Your task to perform on an android device: Add razer huntsman to the cart on costco.com Image 0: 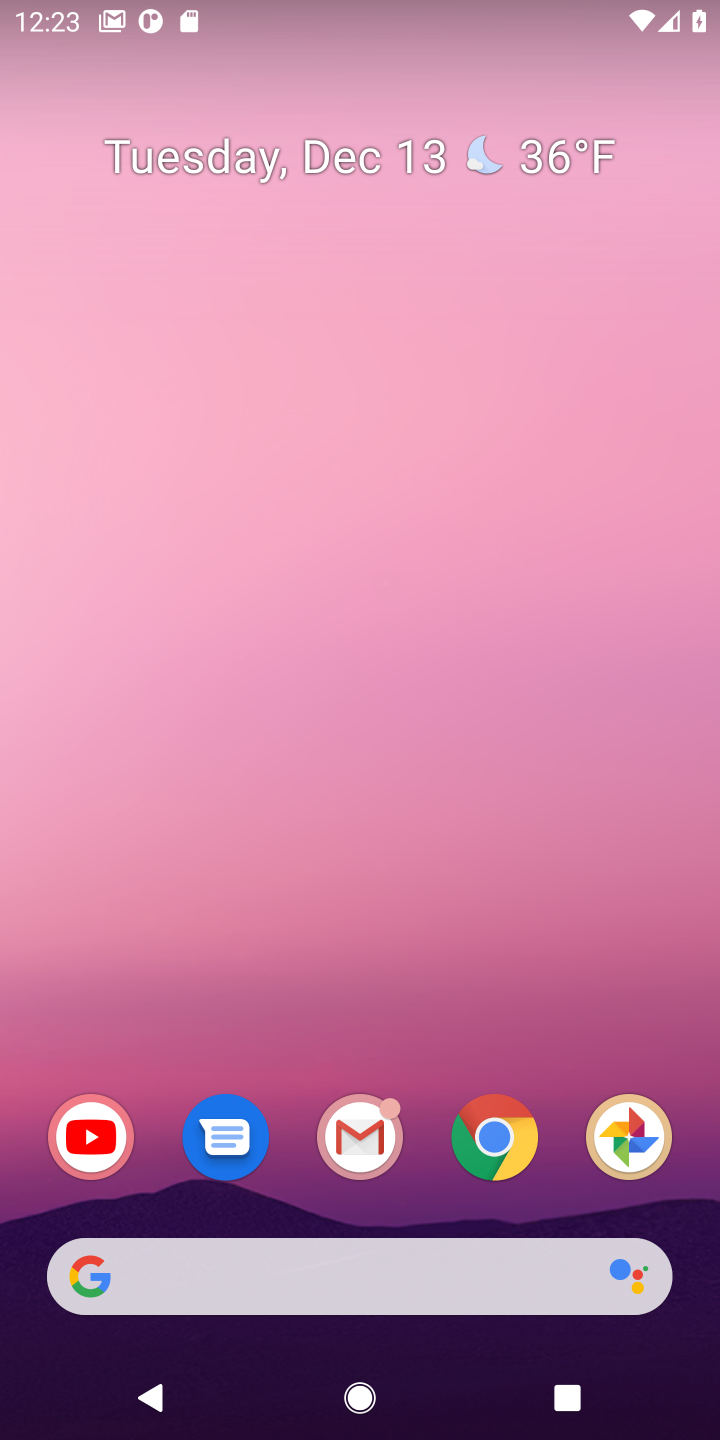
Step 0: click (305, 1254)
Your task to perform on an android device: Add razer huntsman to the cart on costco.com Image 1: 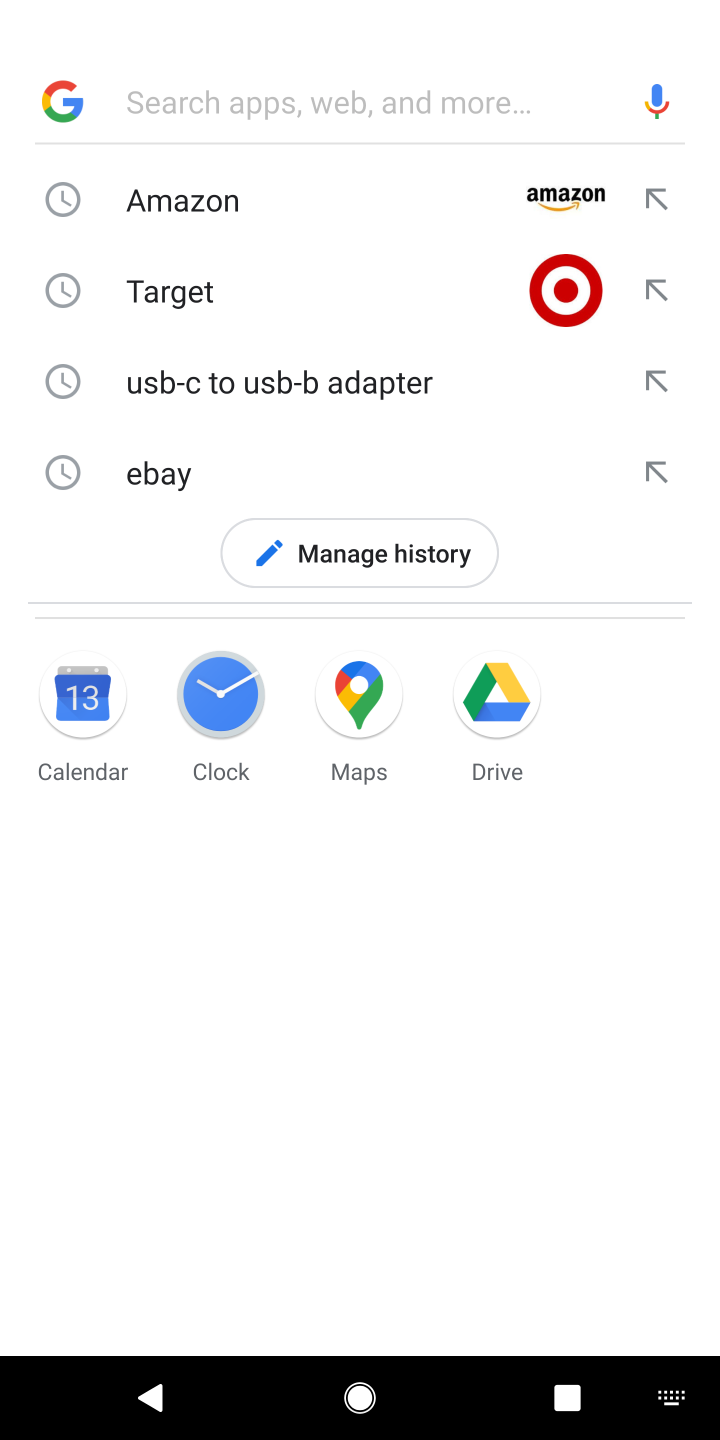
Step 1: type " ostco"
Your task to perform on an android device: Add razer huntsman to the cart on costco.com Image 2: 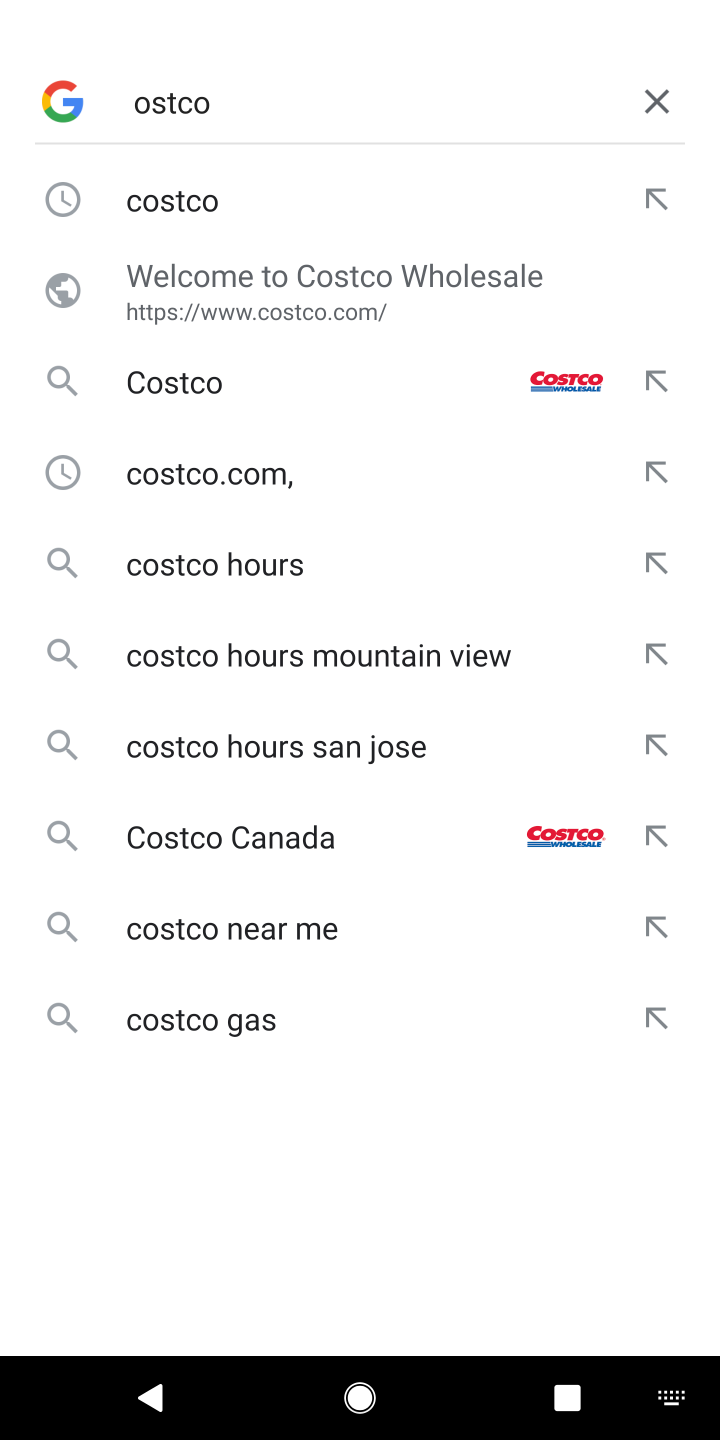
Step 2: click (230, 282)
Your task to perform on an android device: Add razer huntsman to the cart on costco.com Image 3: 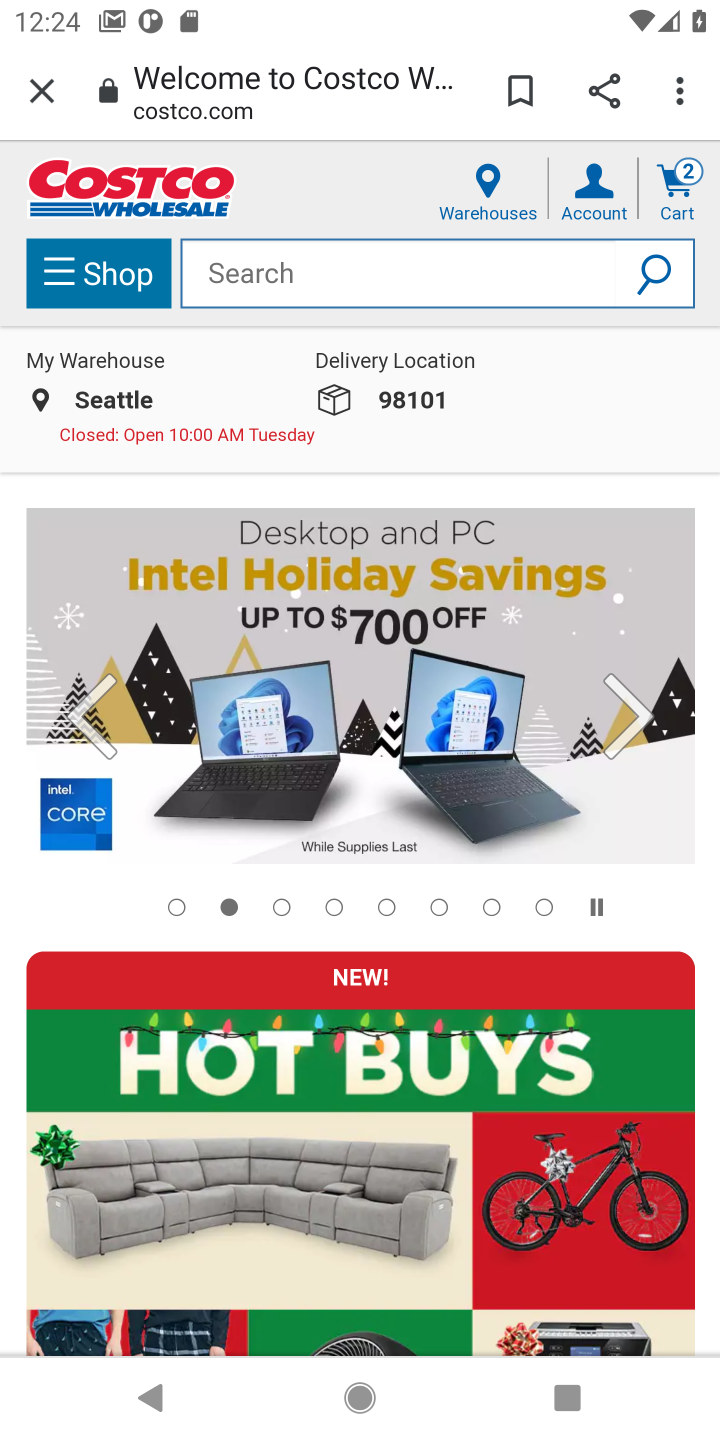
Step 3: click (411, 265)
Your task to perform on an android device: Add razer huntsman to the cart on costco.com Image 4: 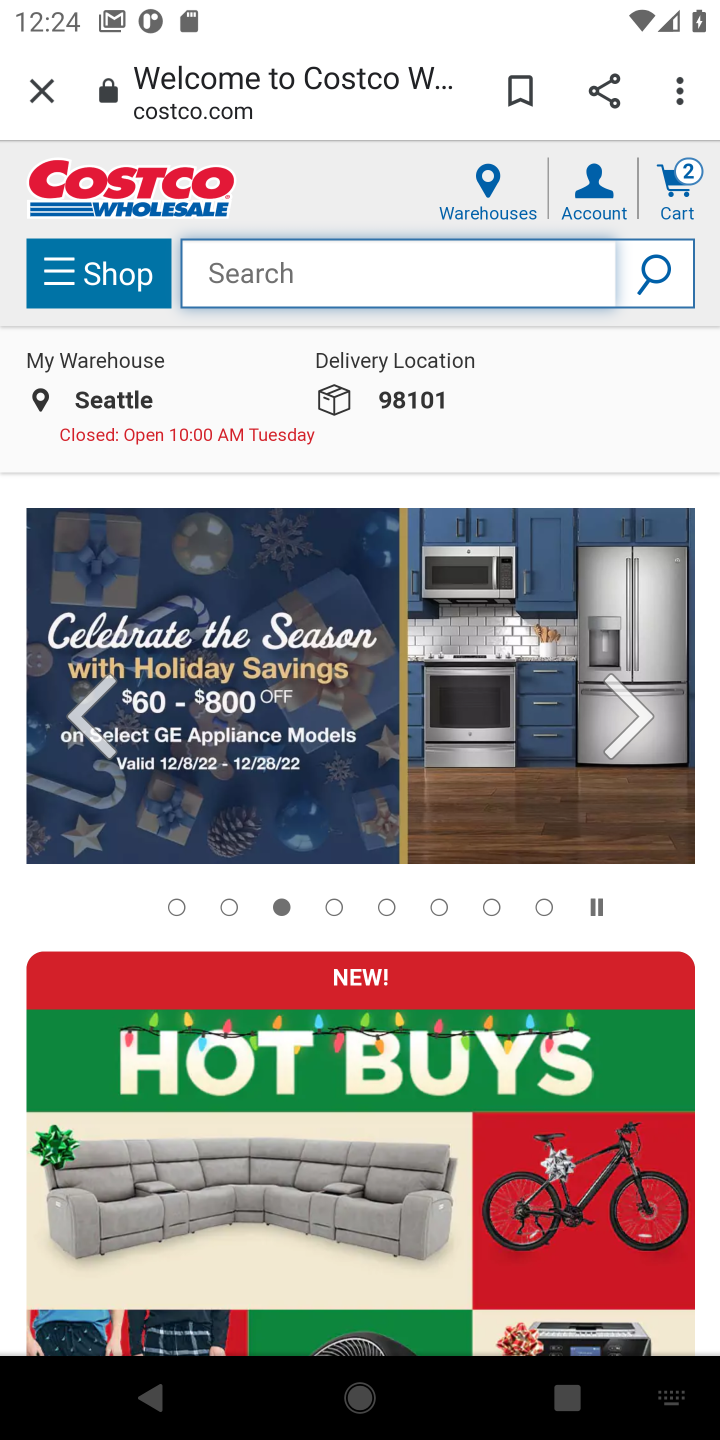
Step 4: type "razer huntsman"
Your task to perform on an android device: Add razer huntsman to the cart on costco.com Image 5: 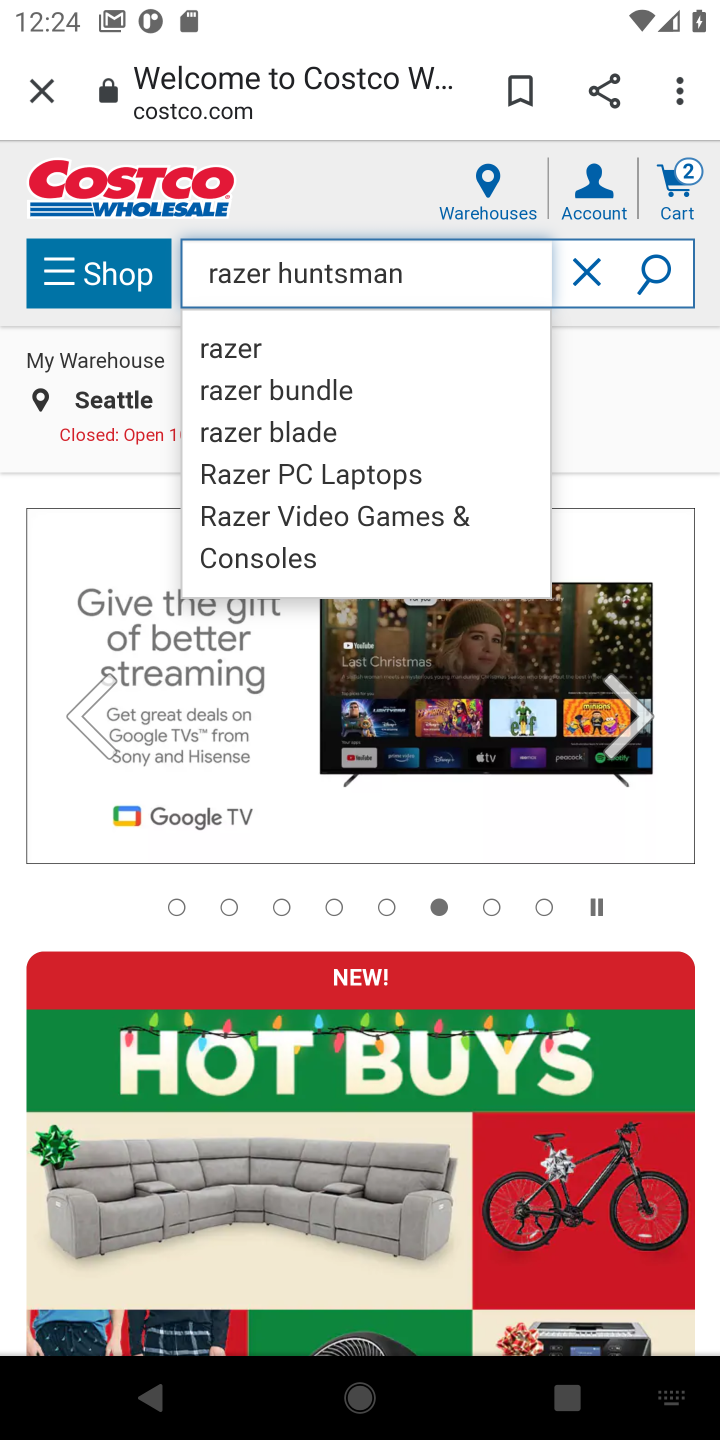
Step 5: click (654, 269)
Your task to perform on an android device: Add razer huntsman to the cart on costco.com Image 6: 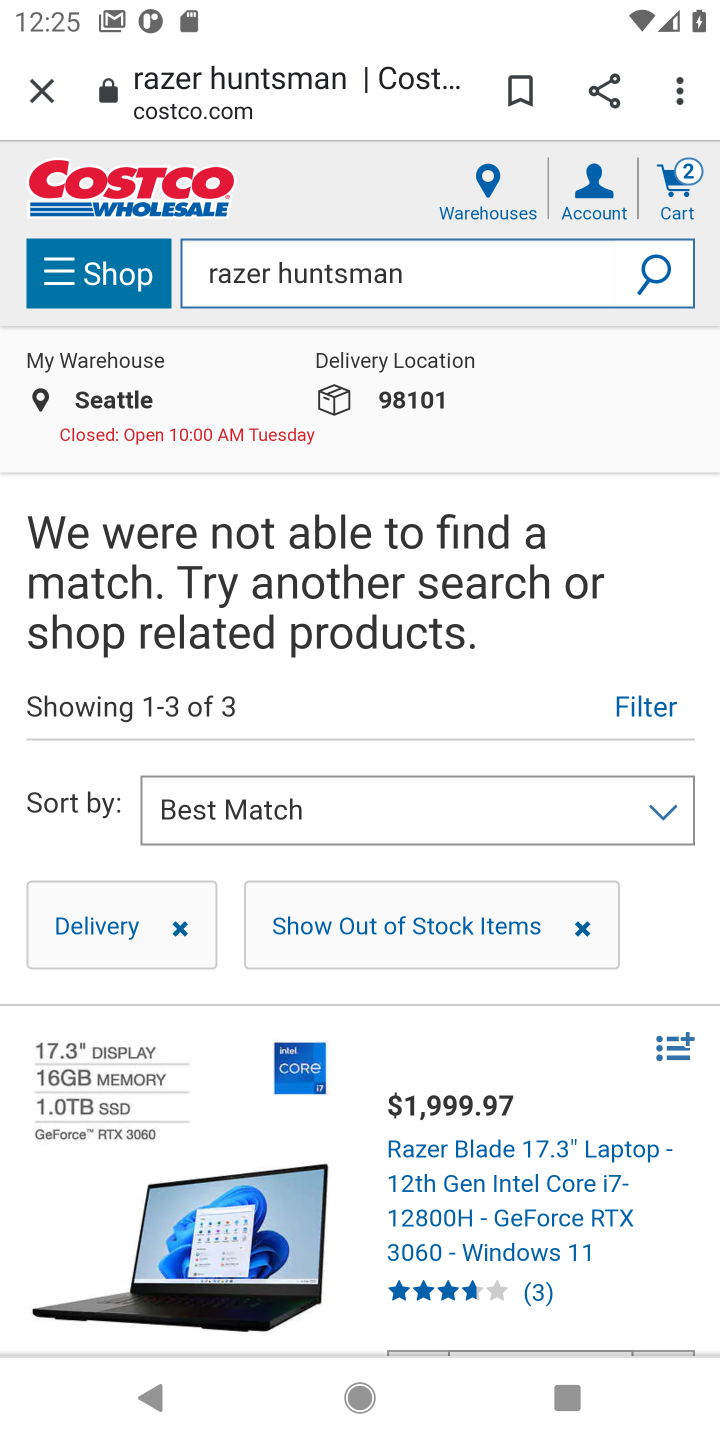
Step 6: click (523, 1172)
Your task to perform on an android device: Add razer huntsman to the cart on costco.com Image 7: 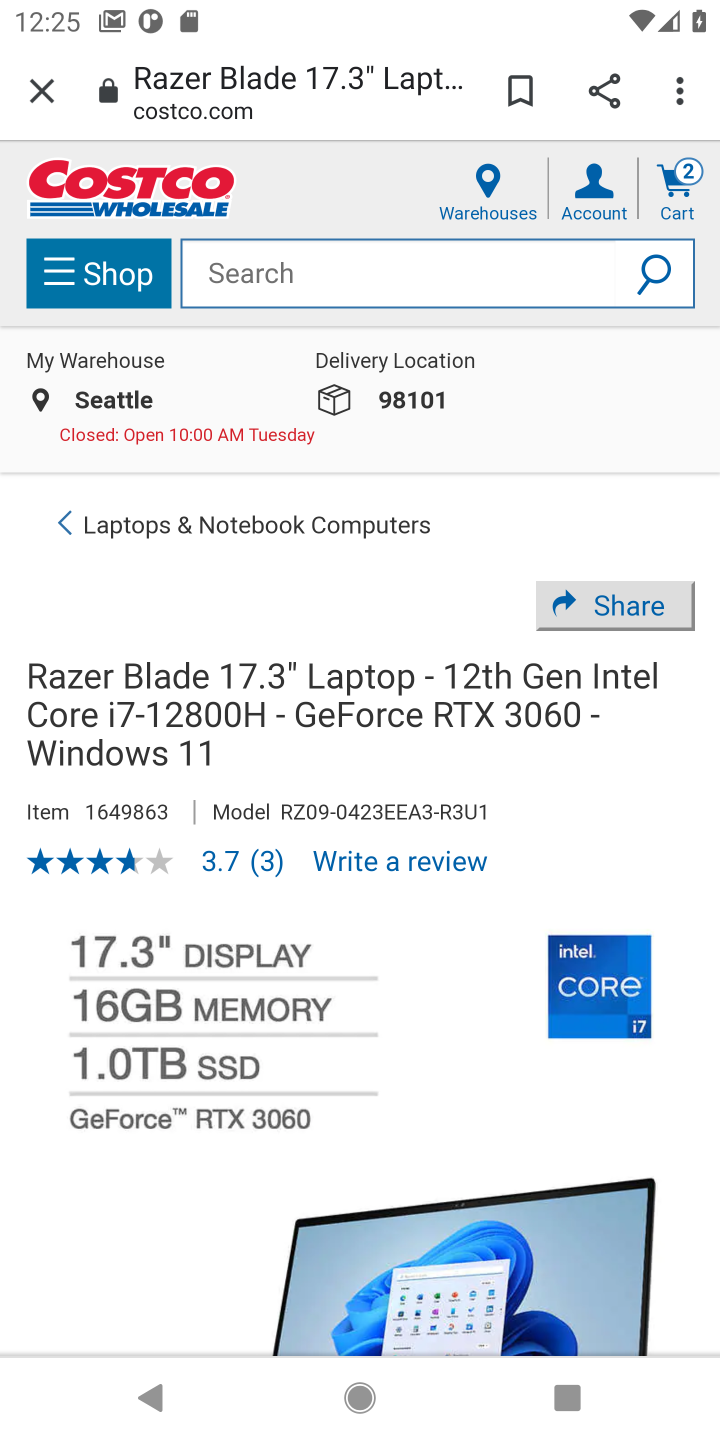
Step 7: task complete